Your task to perform on an android device: turn on javascript in the chrome app Image 0: 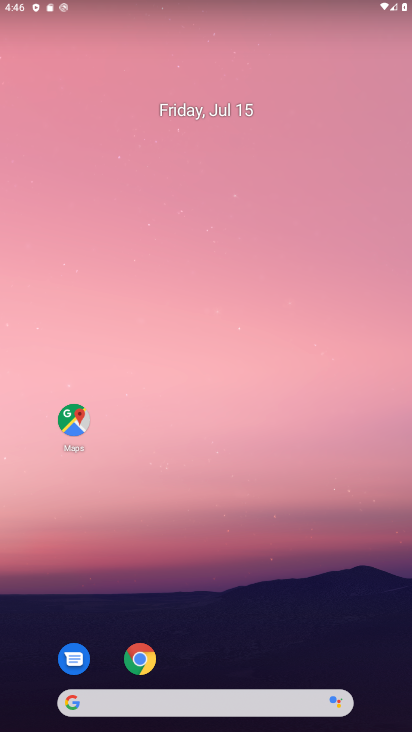
Step 0: click (152, 668)
Your task to perform on an android device: turn on javascript in the chrome app Image 1: 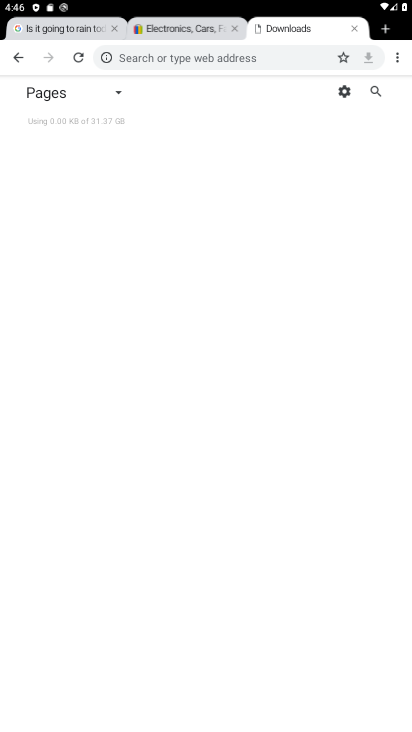
Step 1: click (399, 66)
Your task to perform on an android device: turn on javascript in the chrome app Image 2: 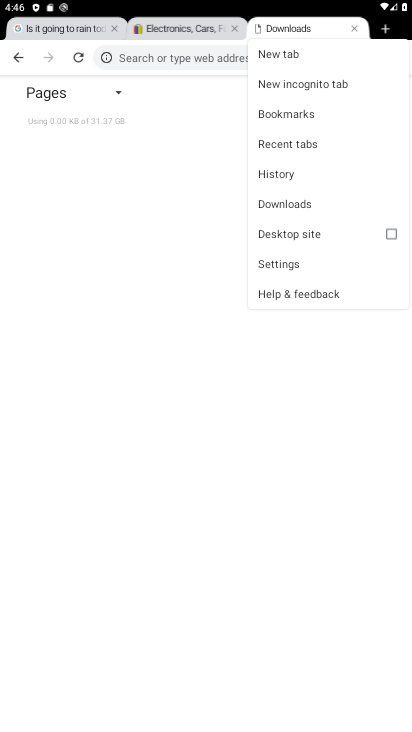
Step 2: click (284, 265)
Your task to perform on an android device: turn on javascript in the chrome app Image 3: 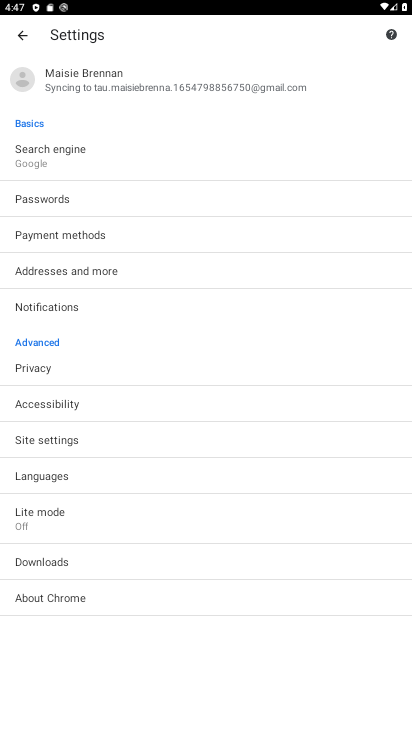
Step 3: click (122, 436)
Your task to perform on an android device: turn on javascript in the chrome app Image 4: 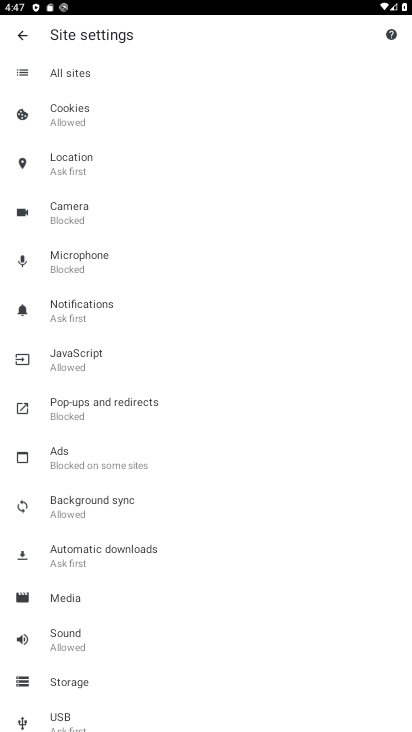
Step 4: click (97, 367)
Your task to perform on an android device: turn on javascript in the chrome app Image 5: 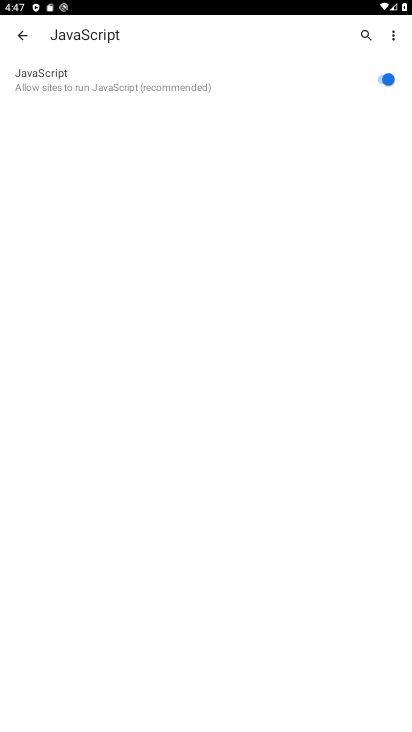
Step 5: task complete